Your task to perform on an android device: turn on the 24-hour format for clock Image 0: 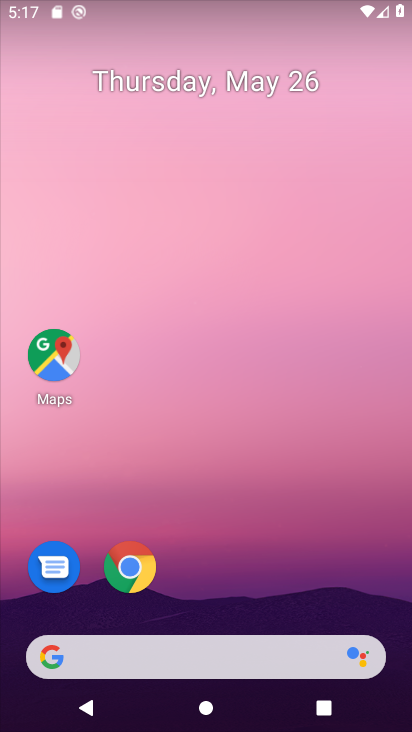
Step 0: press home button
Your task to perform on an android device: turn on the 24-hour format for clock Image 1: 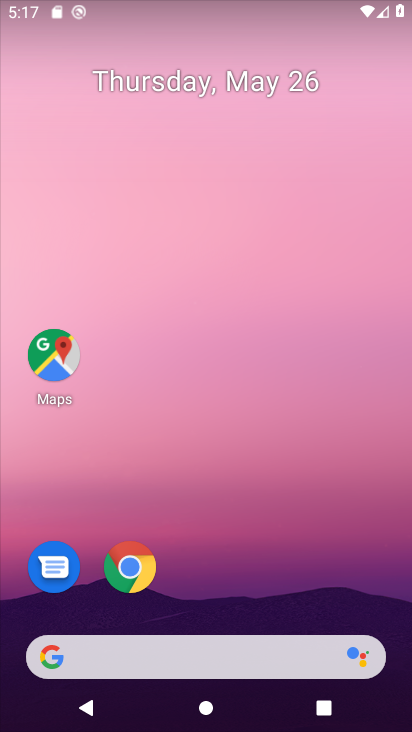
Step 1: drag from (296, 579) to (328, 92)
Your task to perform on an android device: turn on the 24-hour format for clock Image 2: 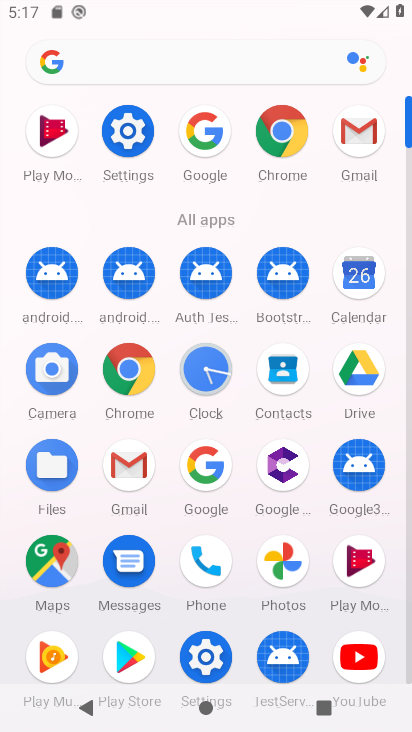
Step 2: click (200, 387)
Your task to perform on an android device: turn on the 24-hour format for clock Image 3: 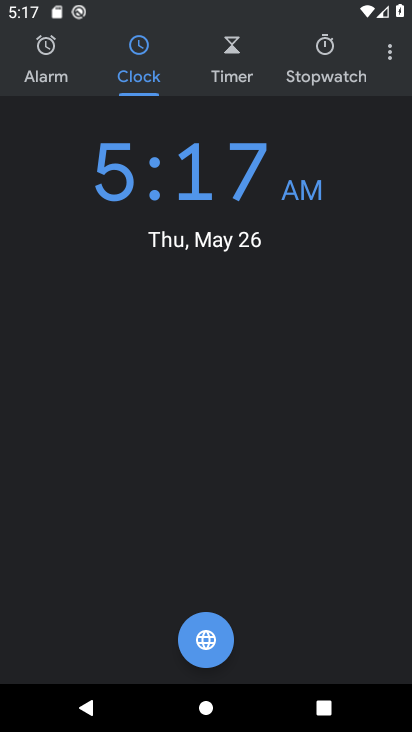
Step 3: click (398, 51)
Your task to perform on an android device: turn on the 24-hour format for clock Image 4: 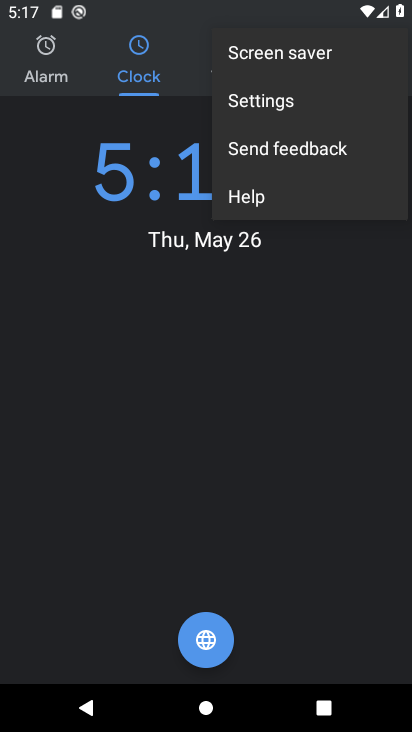
Step 4: click (251, 101)
Your task to perform on an android device: turn on the 24-hour format for clock Image 5: 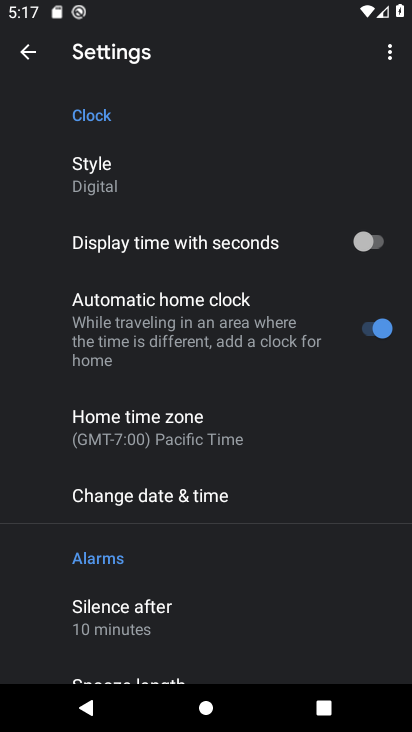
Step 5: click (236, 489)
Your task to perform on an android device: turn on the 24-hour format for clock Image 6: 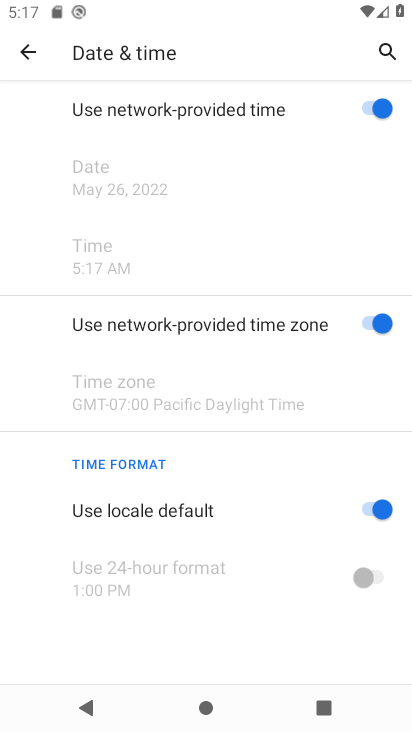
Step 6: click (371, 578)
Your task to perform on an android device: turn on the 24-hour format for clock Image 7: 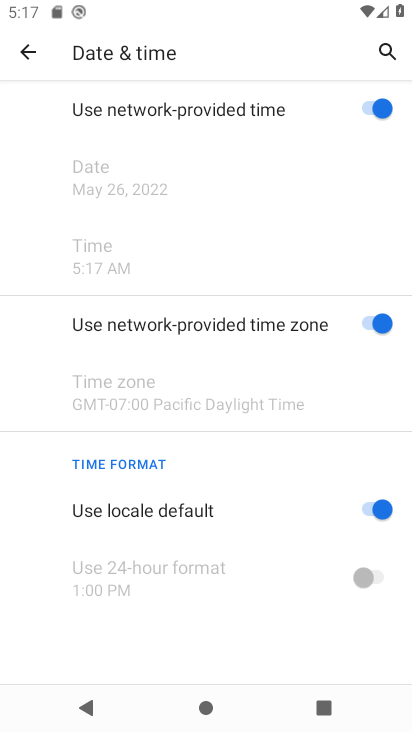
Step 7: click (364, 508)
Your task to perform on an android device: turn on the 24-hour format for clock Image 8: 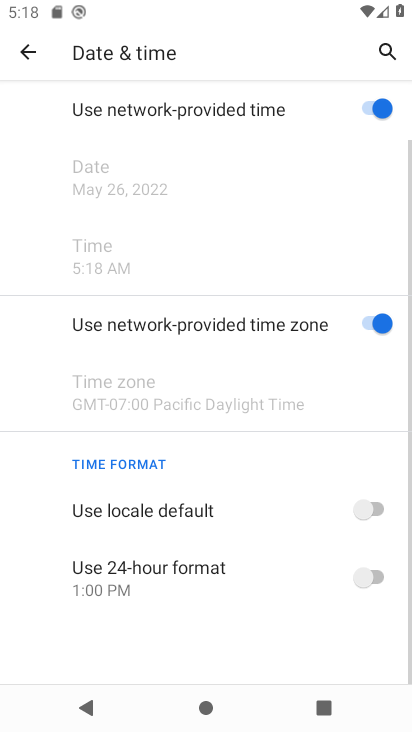
Step 8: click (377, 574)
Your task to perform on an android device: turn on the 24-hour format for clock Image 9: 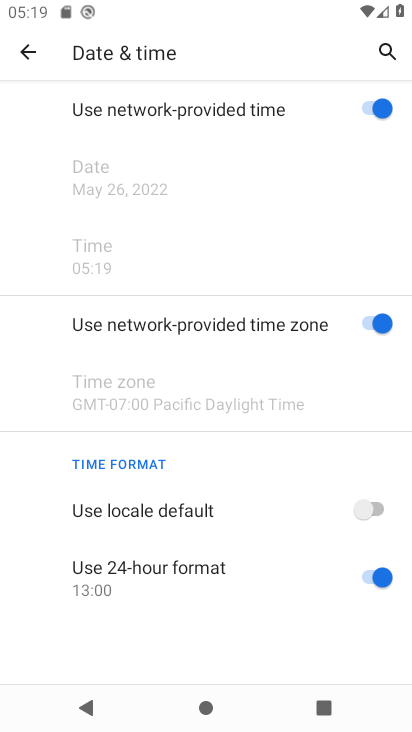
Step 9: task complete